Your task to perform on an android device: all mails in gmail Image 0: 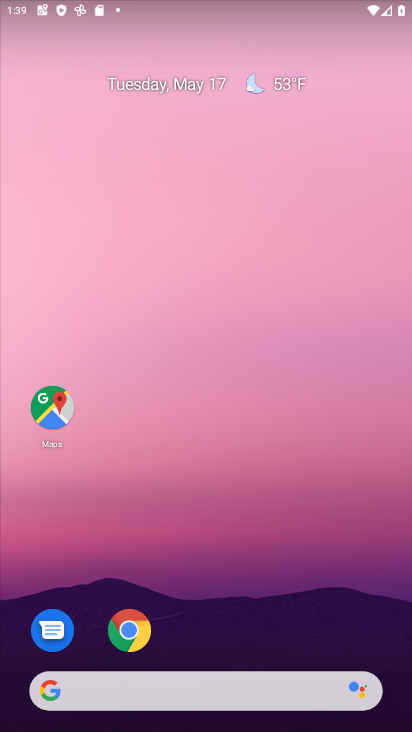
Step 0: drag from (223, 599) to (287, 113)
Your task to perform on an android device: all mails in gmail Image 1: 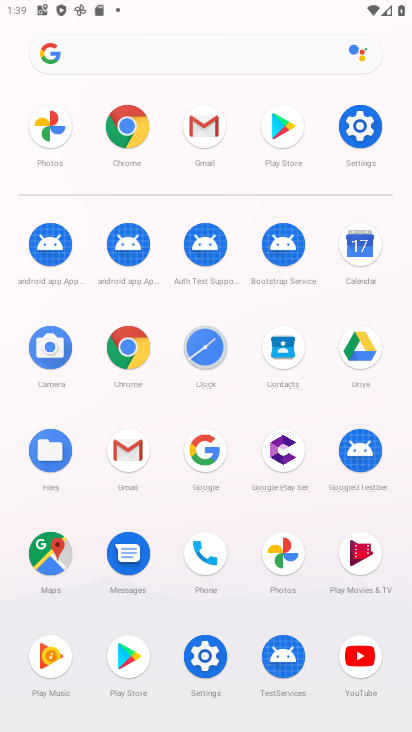
Step 1: click (130, 458)
Your task to perform on an android device: all mails in gmail Image 2: 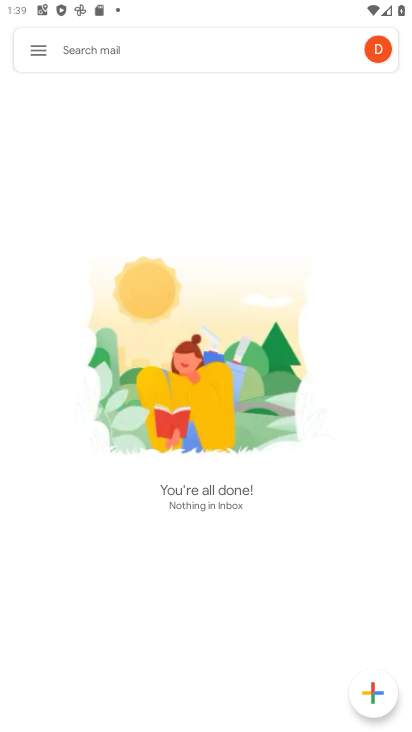
Step 2: click (36, 54)
Your task to perform on an android device: all mails in gmail Image 3: 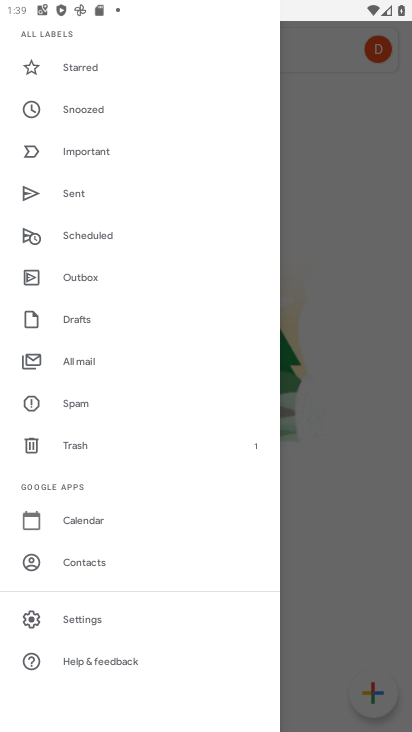
Step 3: click (98, 359)
Your task to perform on an android device: all mails in gmail Image 4: 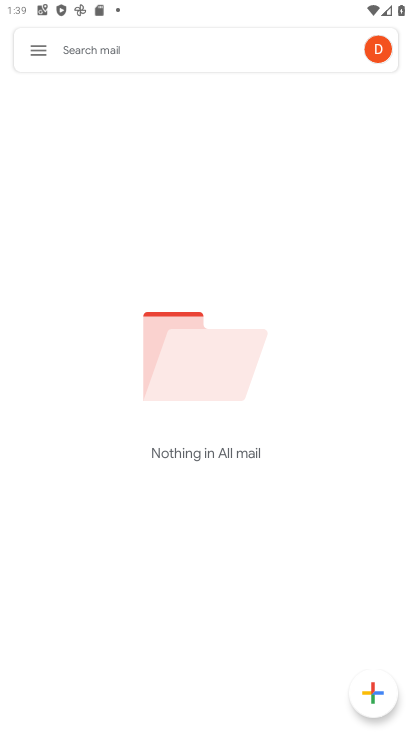
Step 4: task complete